Your task to perform on an android device: Go to accessibility settings Image 0: 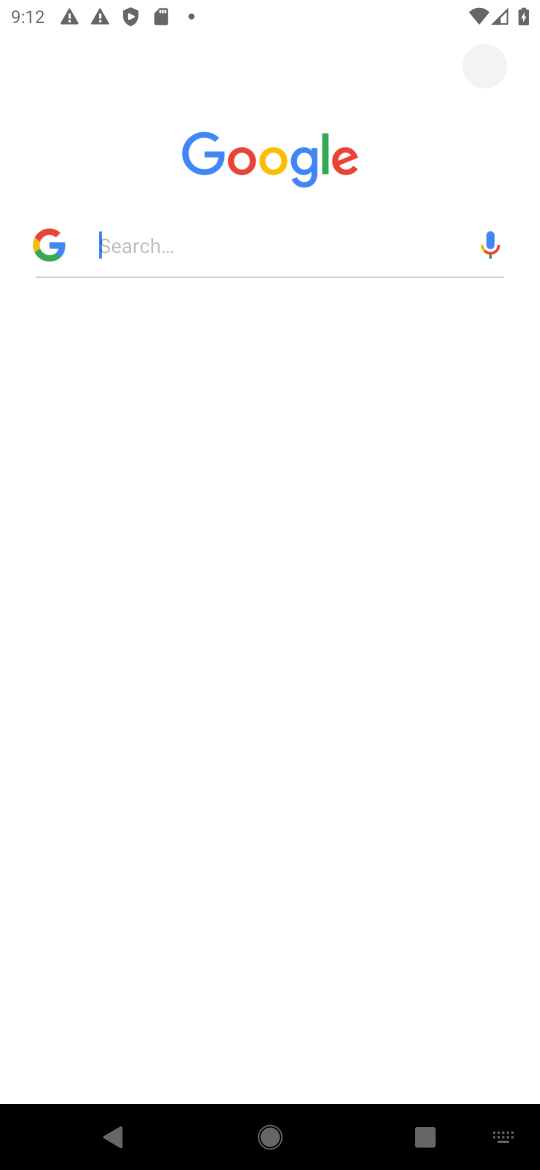
Step 0: click (404, 89)
Your task to perform on an android device: Go to accessibility settings Image 1: 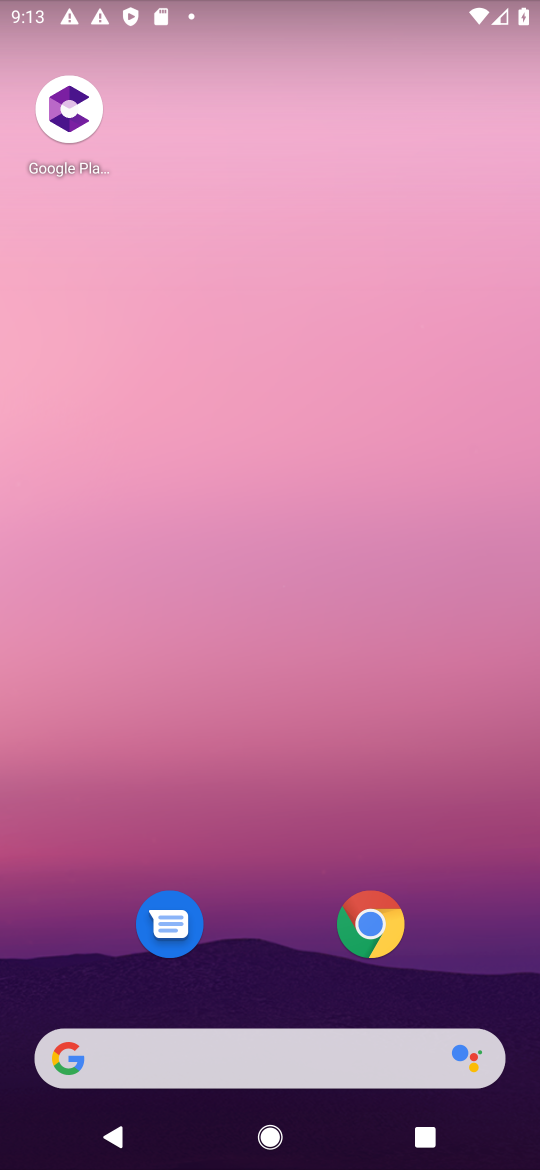
Step 1: drag from (223, 919) to (180, 444)
Your task to perform on an android device: Go to accessibility settings Image 2: 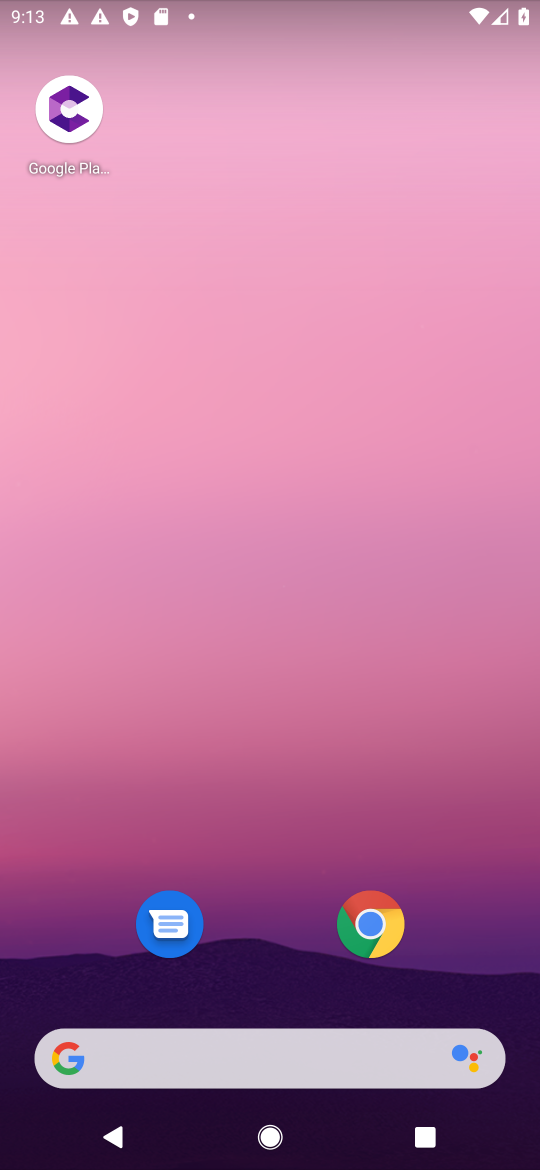
Step 2: drag from (268, 905) to (392, 255)
Your task to perform on an android device: Go to accessibility settings Image 3: 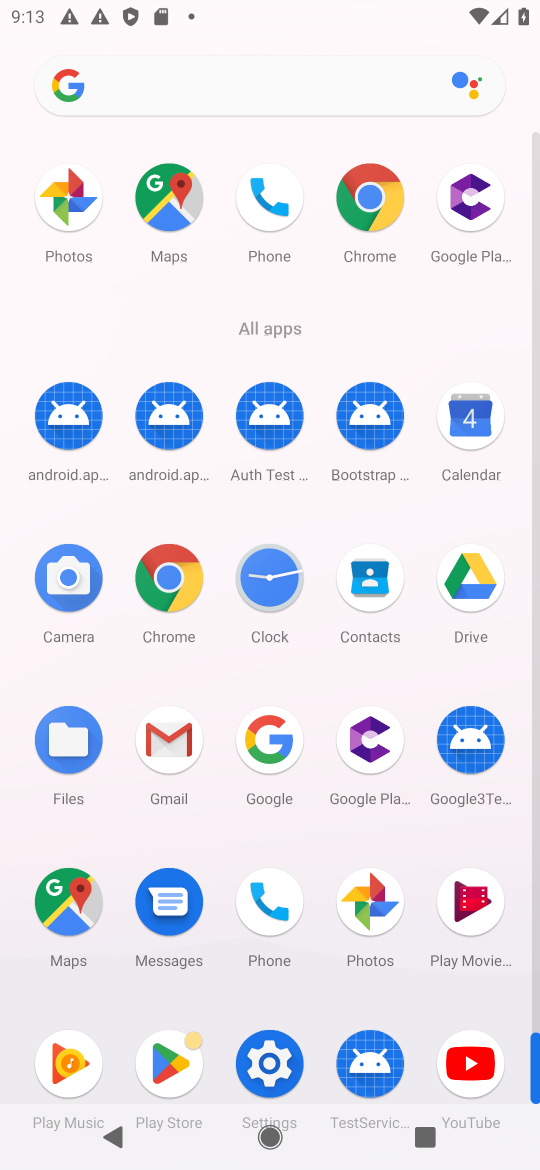
Step 3: click (267, 1051)
Your task to perform on an android device: Go to accessibility settings Image 4: 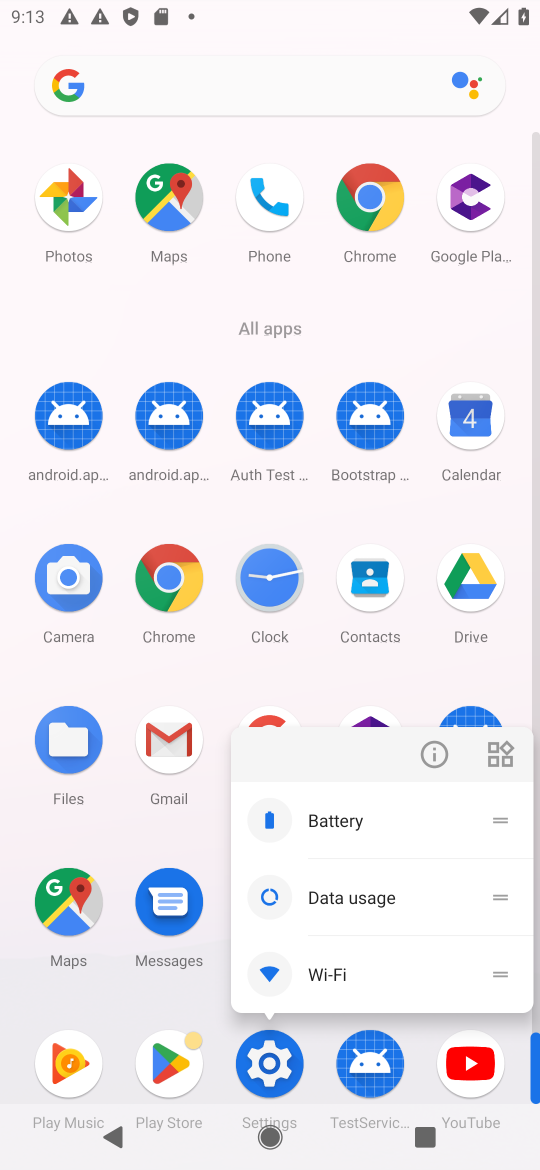
Step 4: click (422, 760)
Your task to perform on an android device: Go to accessibility settings Image 5: 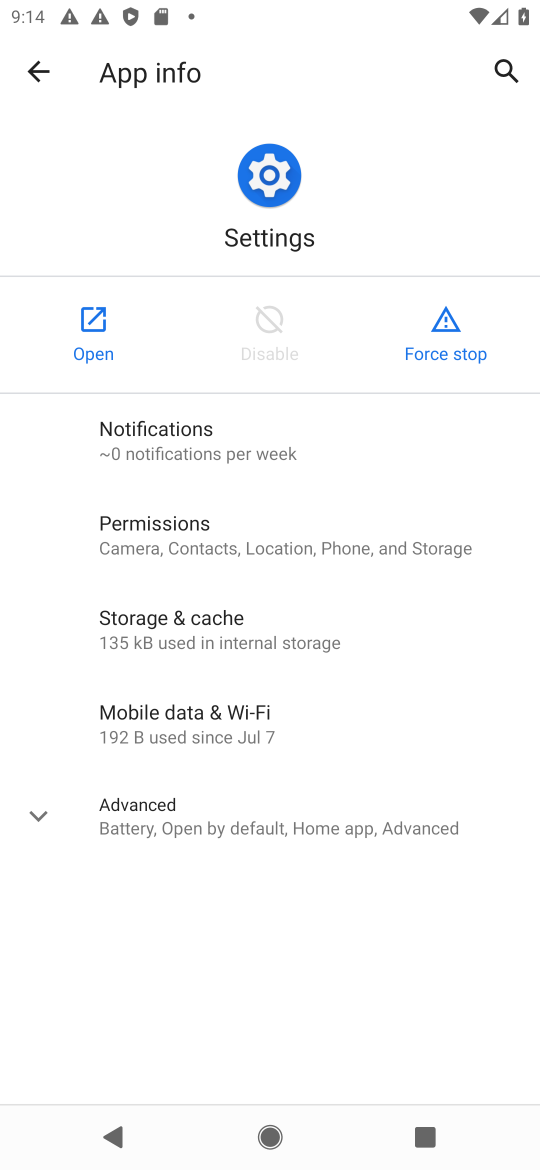
Step 5: click (102, 336)
Your task to perform on an android device: Go to accessibility settings Image 6: 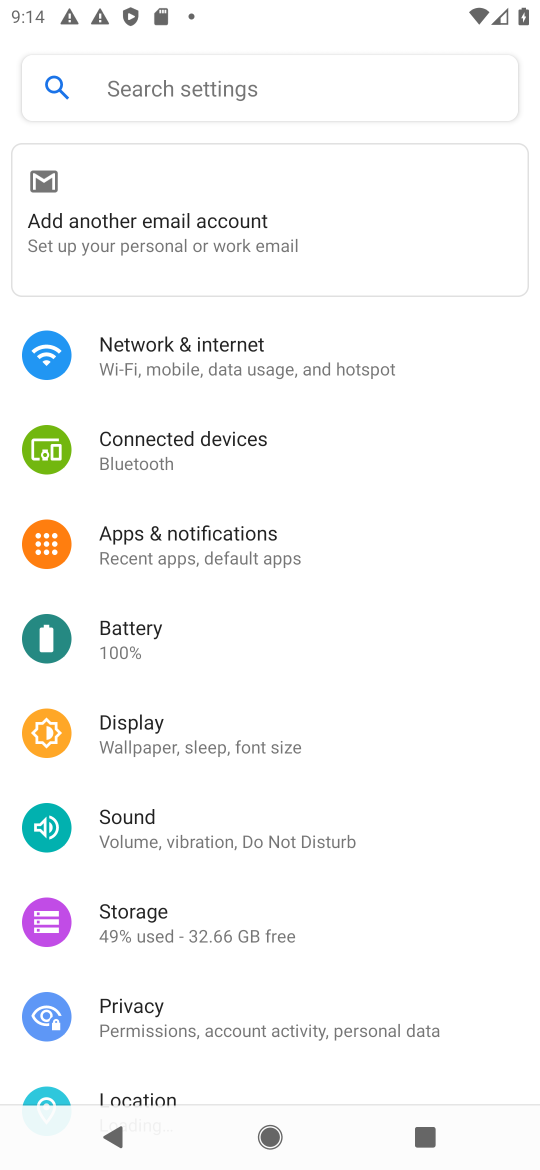
Step 6: drag from (177, 1014) to (321, 124)
Your task to perform on an android device: Go to accessibility settings Image 7: 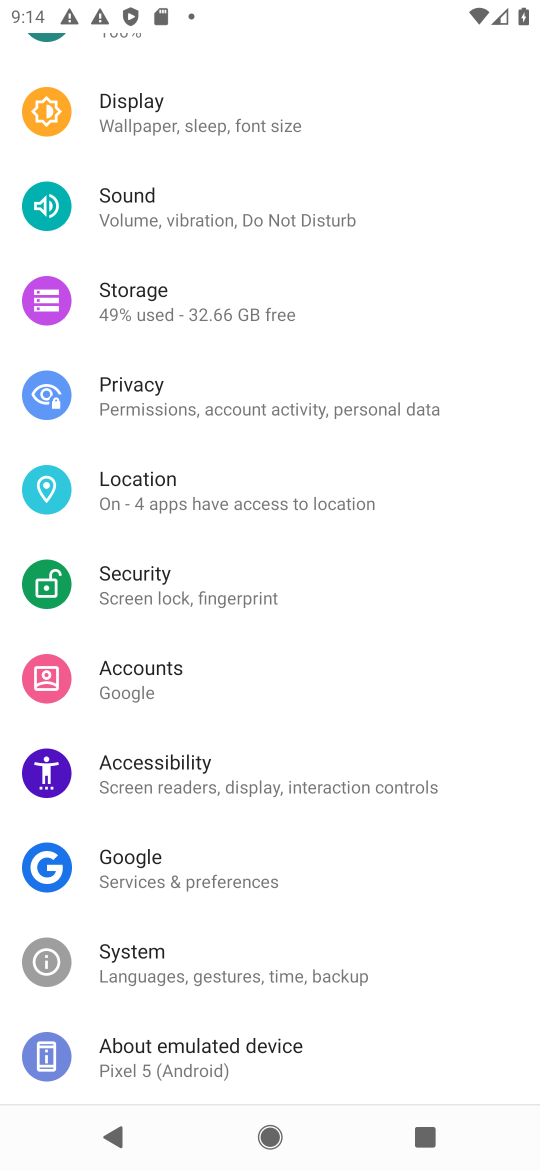
Step 7: click (131, 764)
Your task to perform on an android device: Go to accessibility settings Image 8: 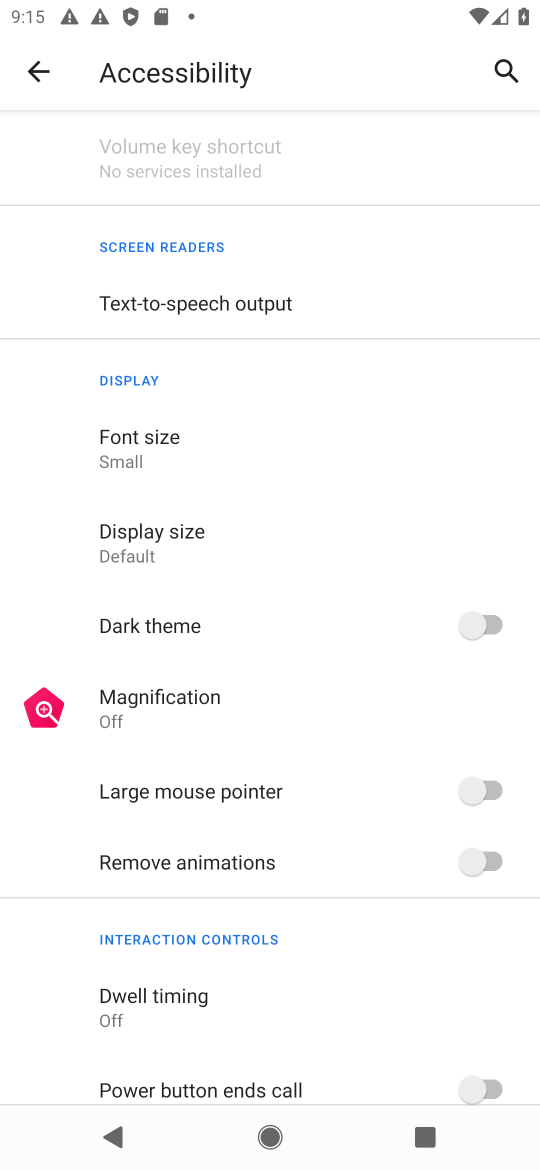
Step 8: task complete